Your task to perform on an android device: move a message to another label in the gmail app Image 0: 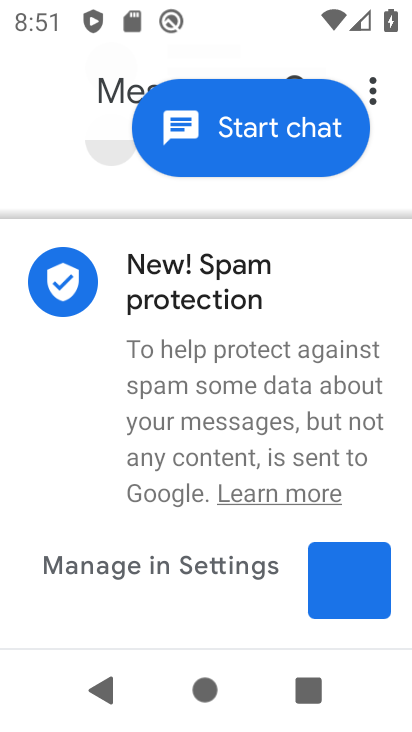
Step 0: press home button
Your task to perform on an android device: move a message to another label in the gmail app Image 1: 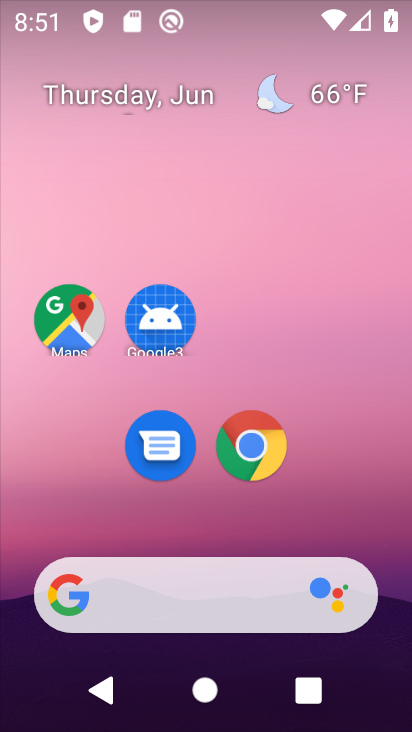
Step 1: drag from (307, 519) to (292, 33)
Your task to perform on an android device: move a message to another label in the gmail app Image 2: 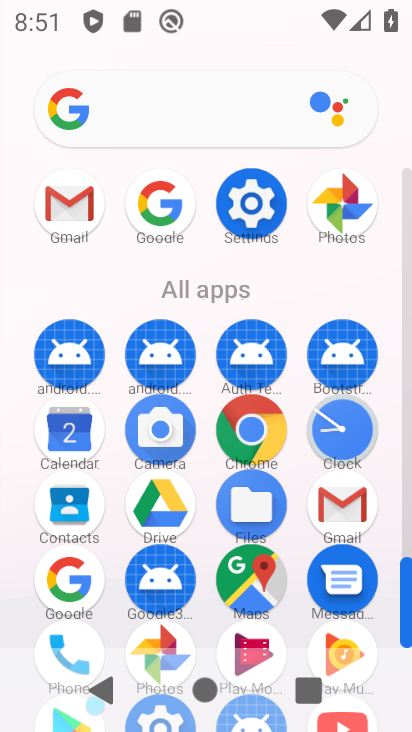
Step 2: click (337, 487)
Your task to perform on an android device: move a message to another label in the gmail app Image 3: 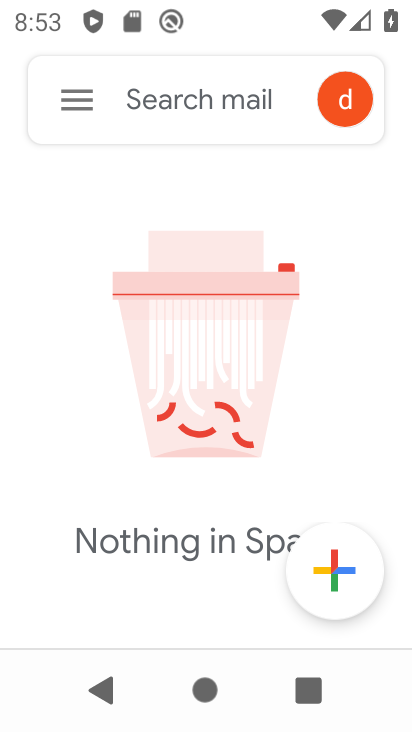
Step 3: click (79, 97)
Your task to perform on an android device: move a message to another label in the gmail app Image 4: 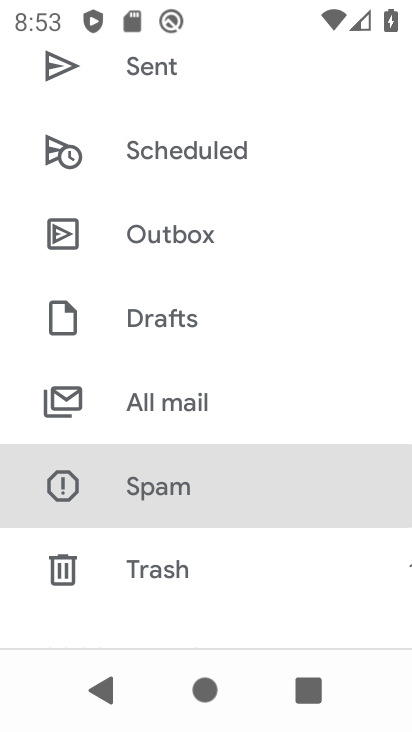
Step 4: drag from (209, 183) to (198, 445)
Your task to perform on an android device: move a message to another label in the gmail app Image 5: 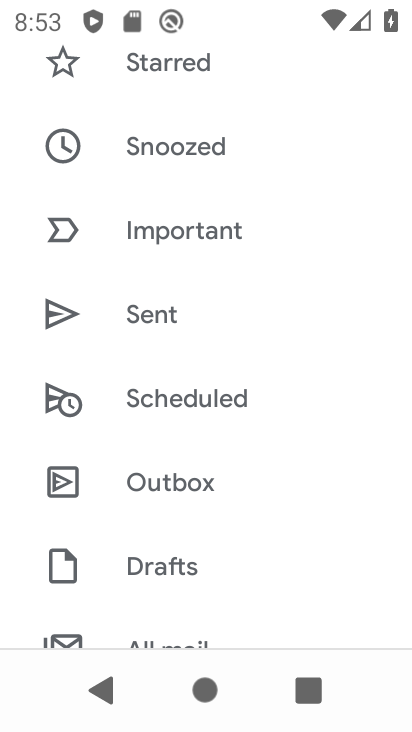
Step 5: click (170, 636)
Your task to perform on an android device: move a message to another label in the gmail app Image 6: 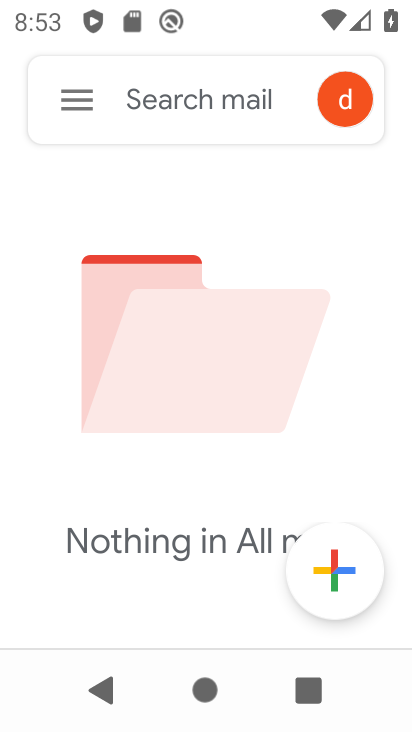
Step 6: task complete